Your task to perform on an android device: Turn on the flashlight Image 0: 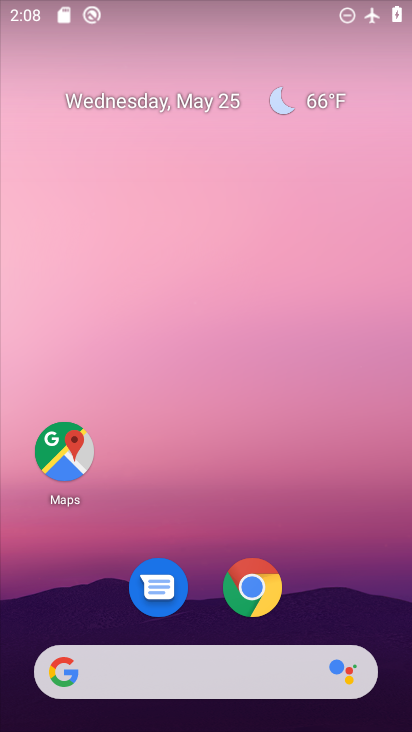
Step 0: drag from (212, 1) to (224, 297)
Your task to perform on an android device: Turn on the flashlight Image 1: 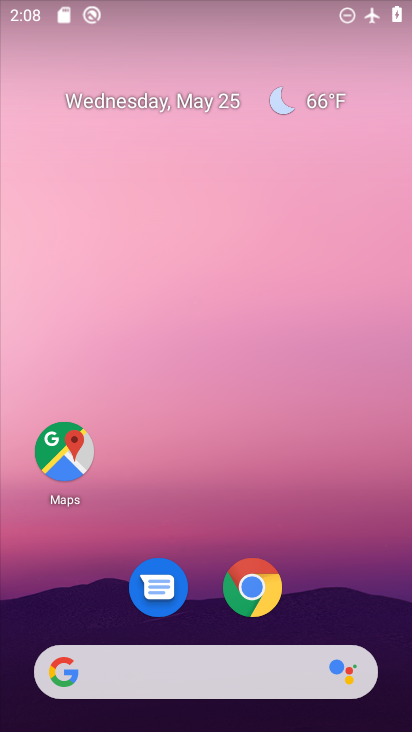
Step 1: drag from (210, 8) to (247, 236)
Your task to perform on an android device: Turn on the flashlight Image 2: 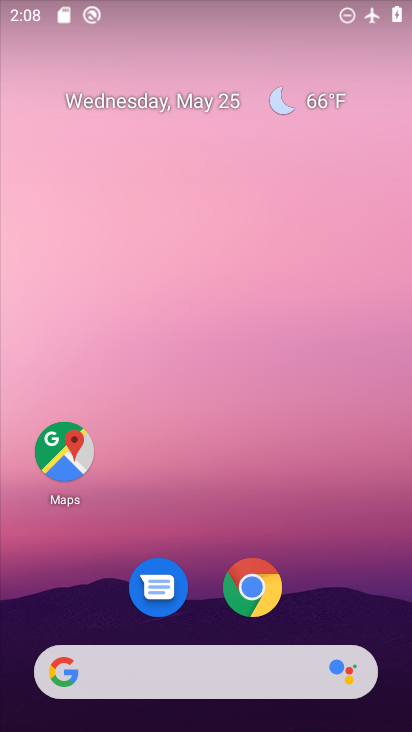
Step 2: drag from (214, 0) to (247, 385)
Your task to perform on an android device: Turn on the flashlight Image 3: 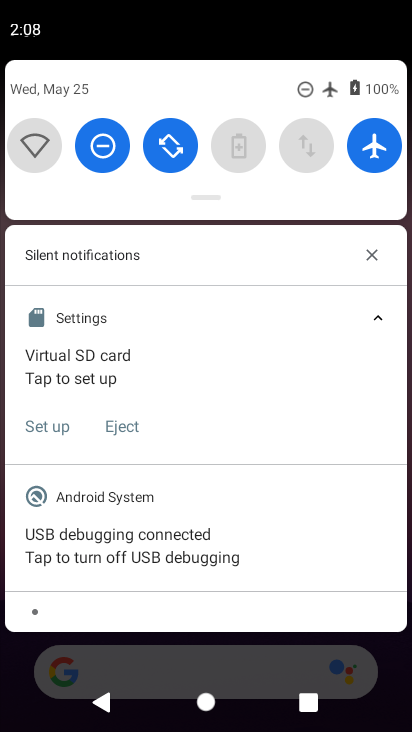
Step 3: drag from (235, 93) to (248, 311)
Your task to perform on an android device: Turn on the flashlight Image 4: 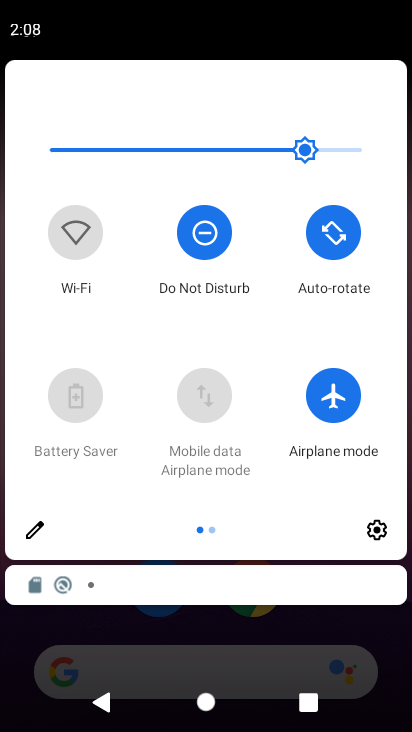
Step 4: click (38, 531)
Your task to perform on an android device: Turn on the flashlight Image 5: 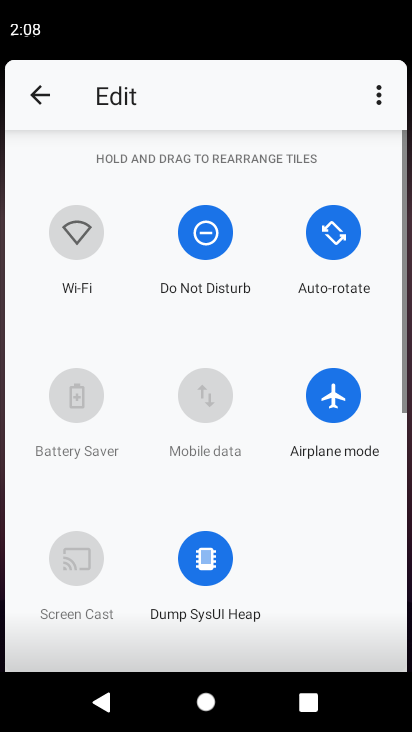
Step 5: task complete